Your task to perform on an android device: change keyboard looks Image 0: 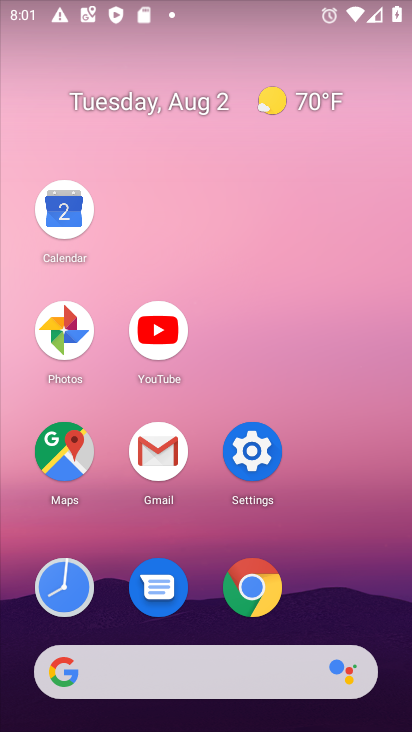
Step 0: click (261, 449)
Your task to perform on an android device: change keyboard looks Image 1: 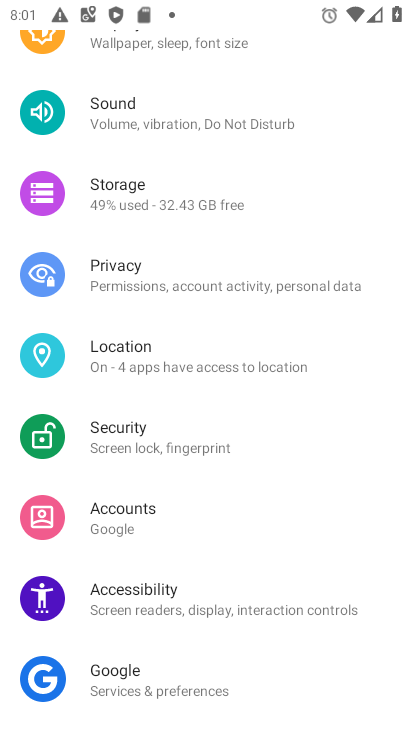
Step 1: drag from (229, 656) to (263, 149)
Your task to perform on an android device: change keyboard looks Image 2: 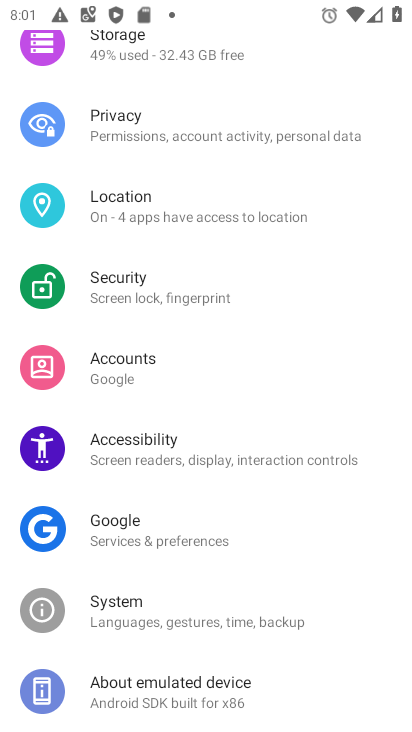
Step 2: click (120, 595)
Your task to perform on an android device: change keyboard looks Image 3: 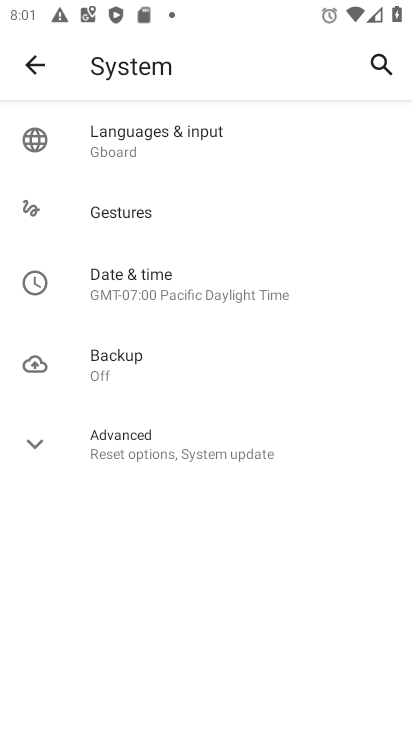
Step 3: click (101, 136)
Your task to perform on an android device: change keyboard looks Image 4: 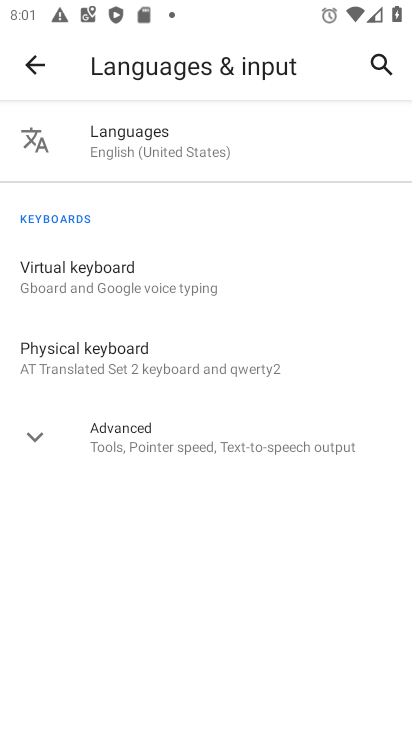
Step 4: click (48, 270)
Your task to perform on an android device: change keyboard looks Image 5: 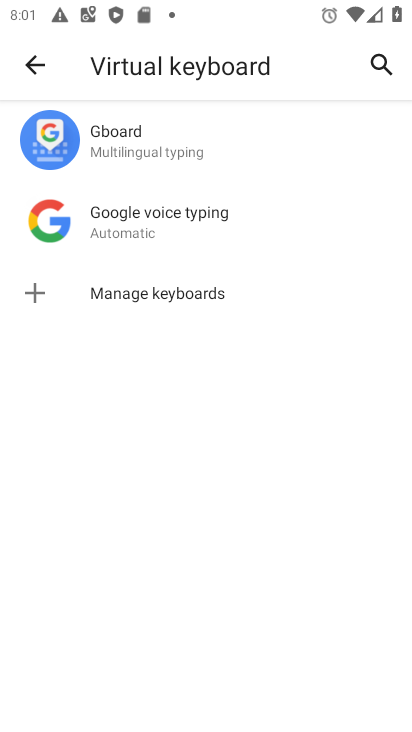
Step 5: click (88, 143)
Your task to perform on an android device: change keyboard looks Image 6: 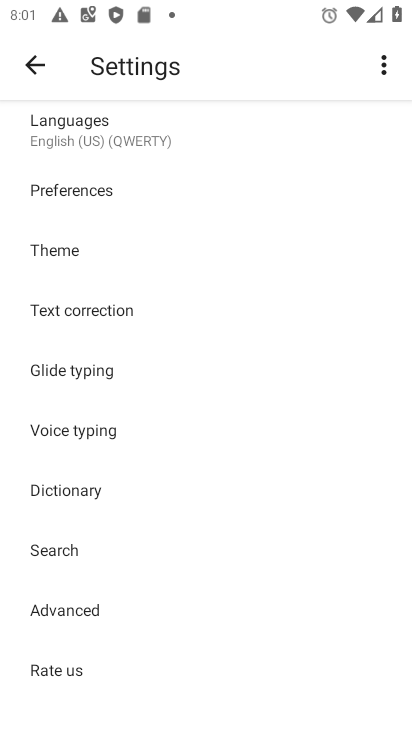
Step 6: click (51, 242)
Your task to perform on an android device: change keyboard looks Image 7: 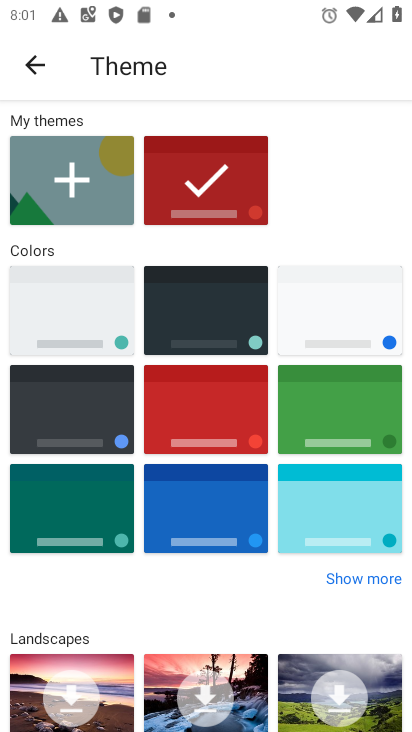
Step 7: click (301, 391)
Your task to perform on an android device: change keyboard looks Image 8: 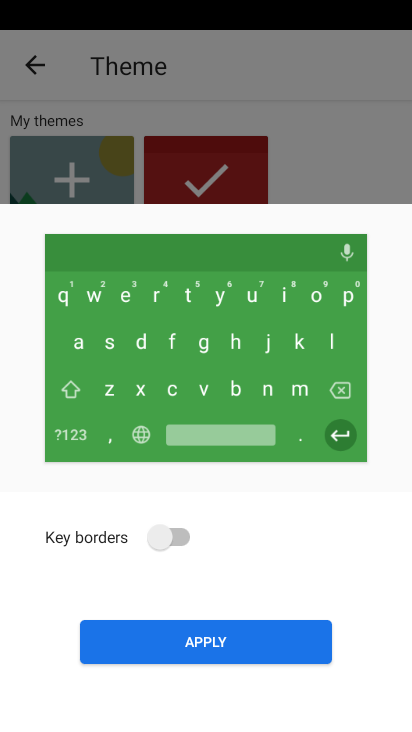
Step 8: click (201, 648)
Your task to perform on an android device: change keyboard looks Image 9: 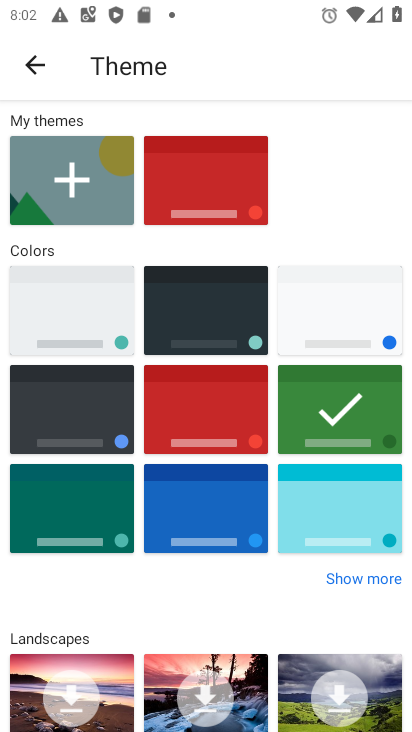
Step 9: task complete